Your task to perform on an android device: delete browsing data in the chrome app Image 0: 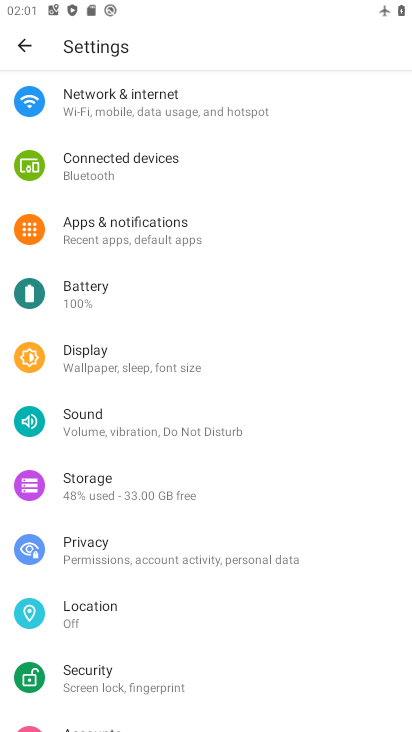
Step 0: press home button
Your task to perform on an android device: delete browsing data in the chrome app Image 1: 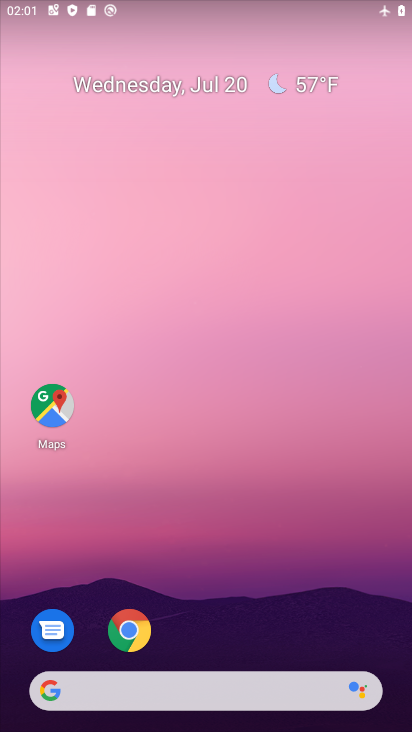
Step 1: drag from (263, 598) to (266, 96)
Your task to perform on an android device: delete browsing data in the chrome app Image 2: 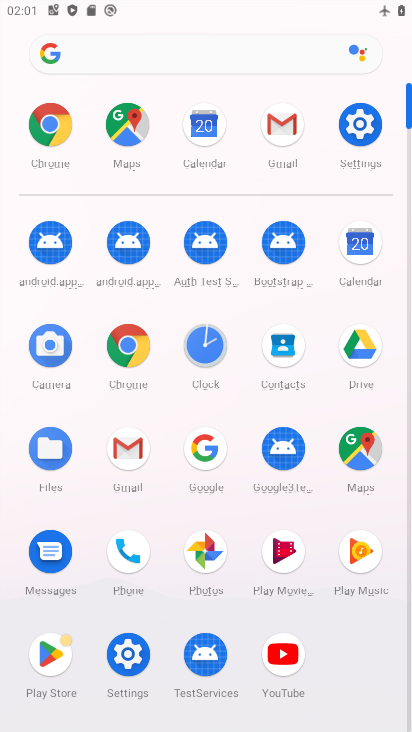
Step 2: click (124, 337)
Your task to perform on an android device: delete browsing data in the chrome app Image 3: 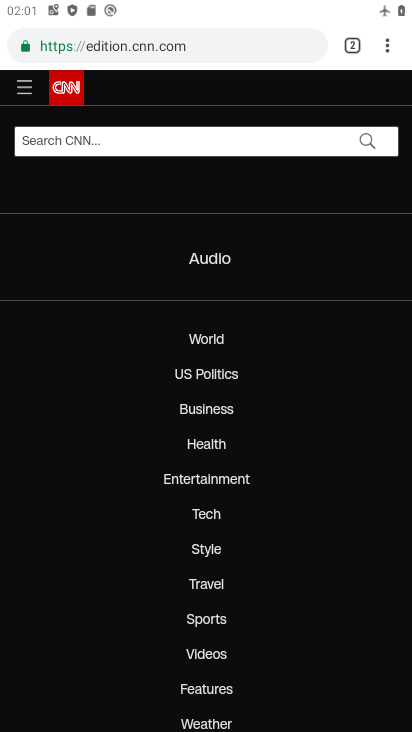
Step 3: drag from (404, 44) to (245, 320)
Your task to perform on an android device: delete browsing data in the chrome app Image 4: 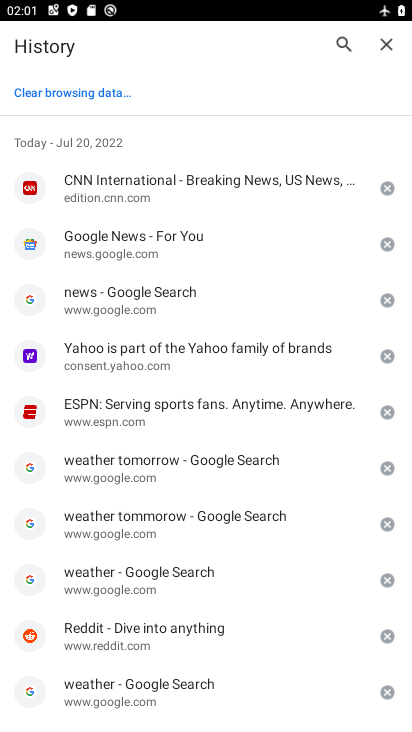
Step 4: click (86, 92)
Your task to perform on an android device: delete browsing data in the chrome app Image 5: 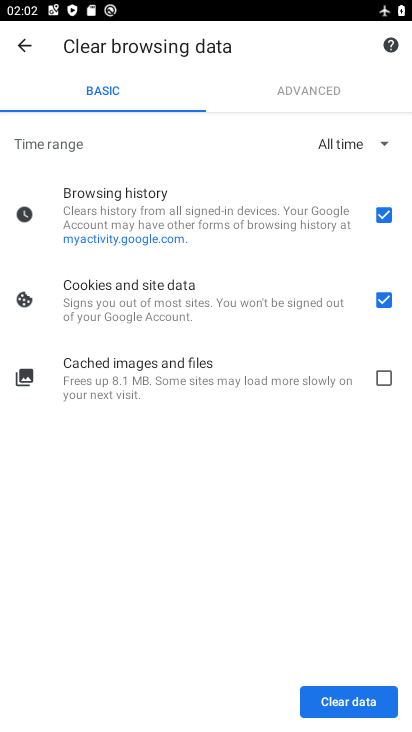
Step 5: click (347, 706)
Your task to perform on an android device: delete browsing data in the chrome app Image 6: 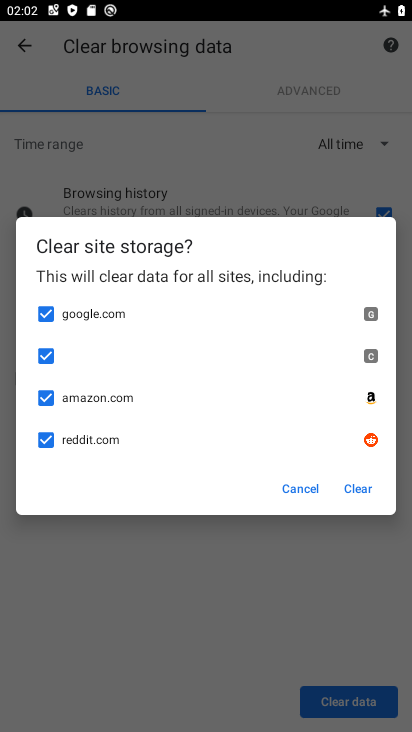
Step 6: click (308, 486)
Your task to perform on an android device: delete browsing data in the chrome app Image 7: 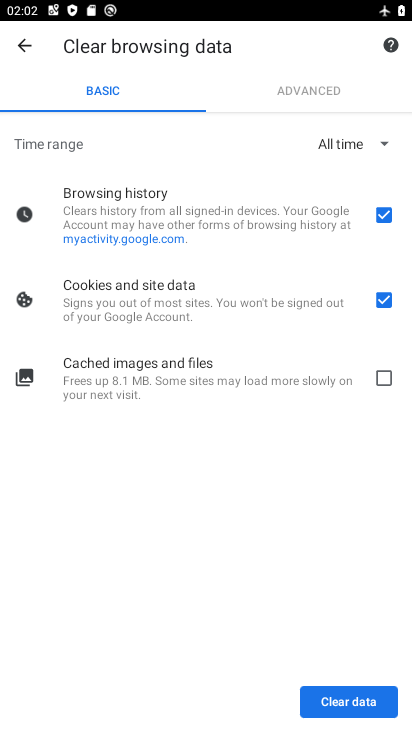
Step 7: click (376, 377)
Your task to perform on an android device: delete browsing data in the chrome app Image 8: 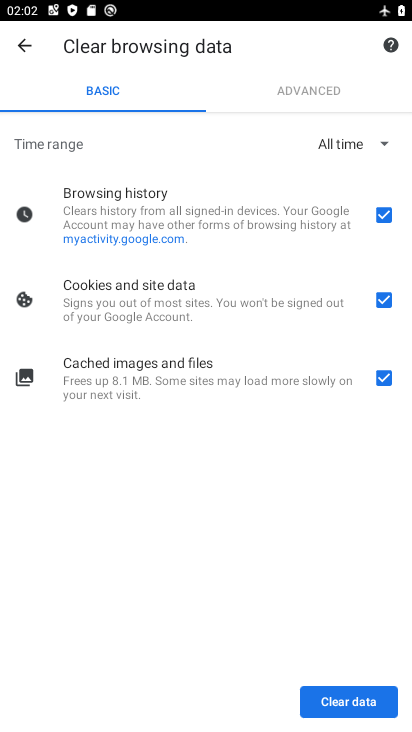
Step 8: click (341, 691)
Your task to perform on an android device: delete browsing data in the chrome app Image 9: 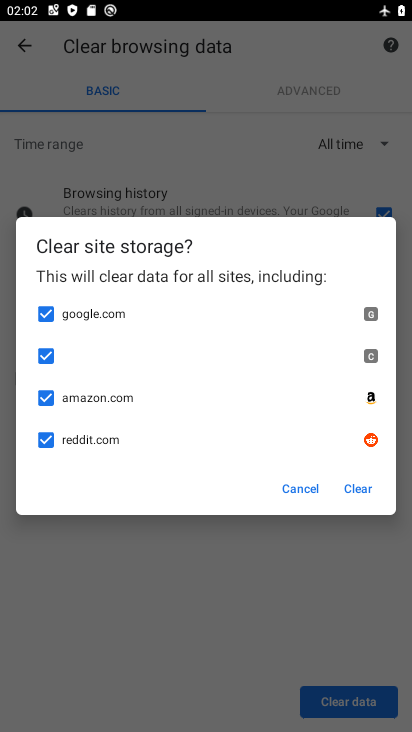
Step 9: click (375, 492)
Your task to perform on an android device: delete browsing data in the chrome app Image 10: 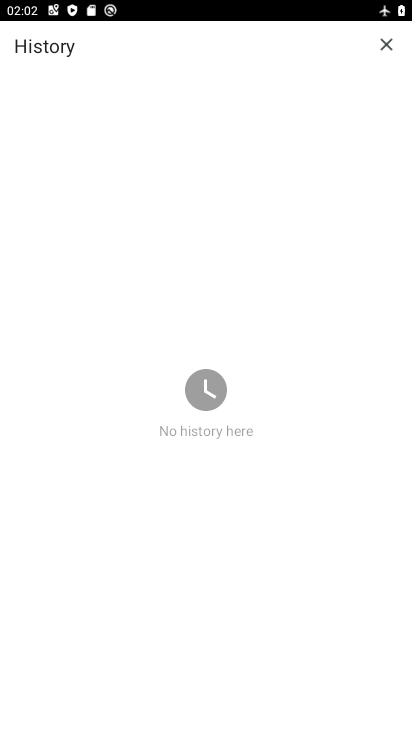
Step 10: task complete